Your task to perform on an android device: Open Youtube and go to the subscriptions tab Image 0: 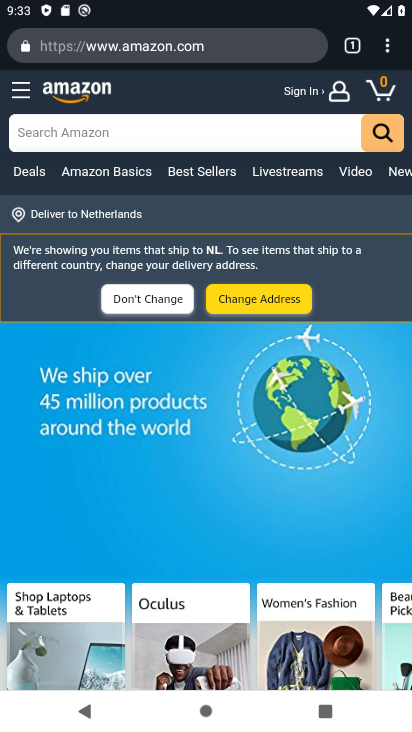
Step 0: press home button
Your task to perform on an android device: Open Youtube and go to the subscriptions tab Image 1: 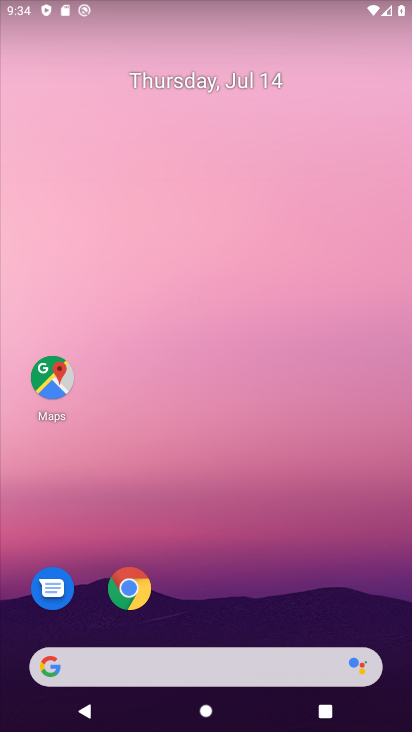
Step 1: drag from (171, 650) to (151, 419)
Your task to perform on an android device: Open Youtube and go to the subscriptions tab Image 2: 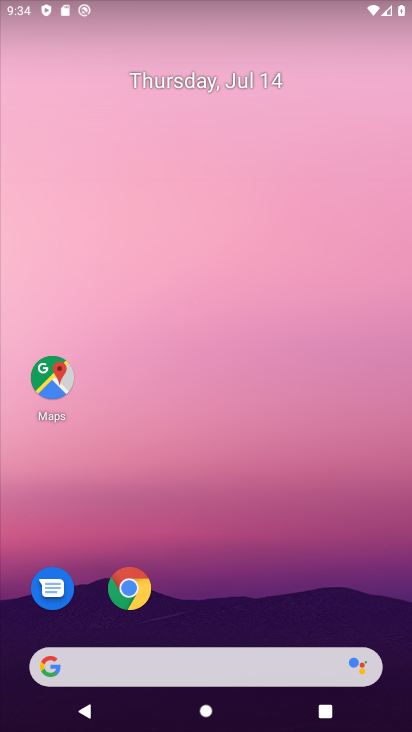
Step 2: drag from (193, 627) to (187, 399)
Your task to perform on an android device: Open Youtube and go to the subscriptions tab Image 3: 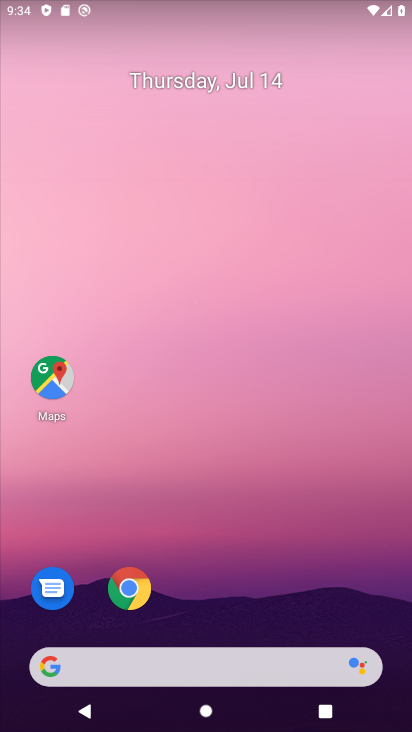
Step 3: drag from (270, 637) to (269, 162)
Your task to perform on an android device: Open Youtube and go to the subscriptions tab Image 4: 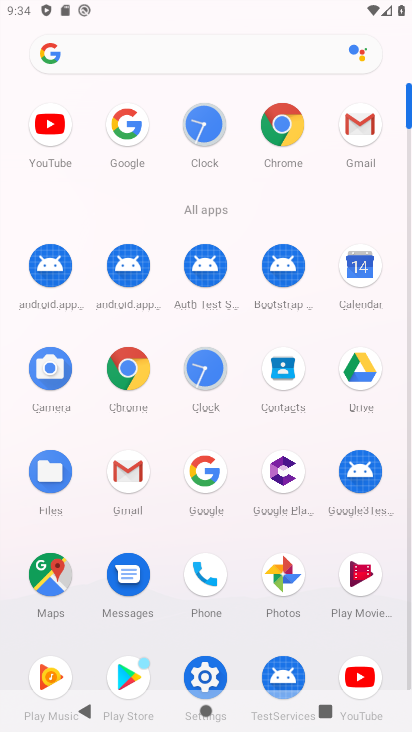
Step 4: click (359, 679)
Your task to perform on an android device: Open Youtube and go to the subscriptions tab Image 5: 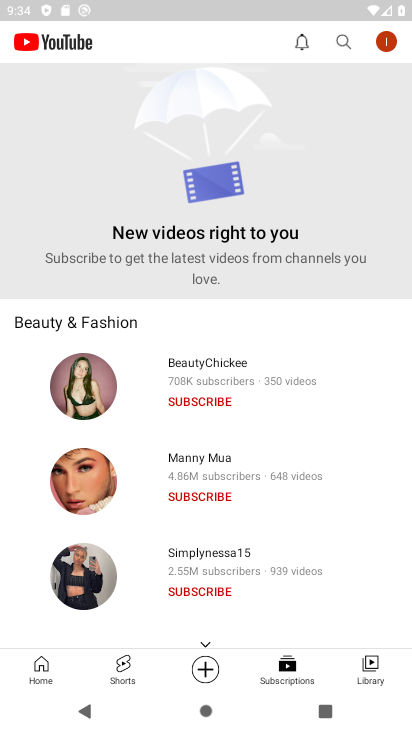
Step 5: task complete